Your task to perform on an android device: Search for Mexican restaurants on Maps Image 0: 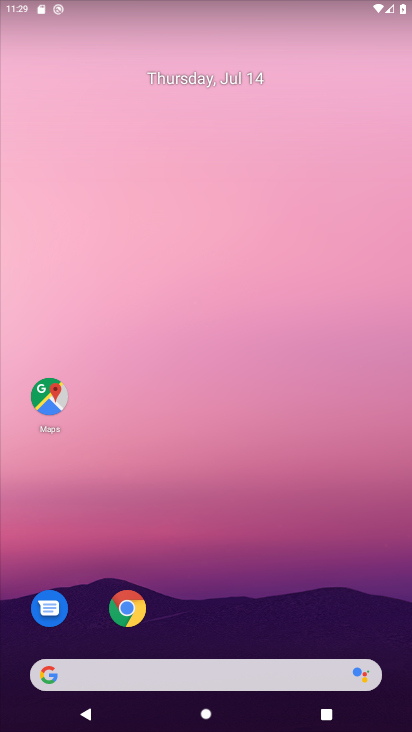
Step 0: drag from (202, 627) to (182, 19)
Your task to perform on an android device: Search for Mexican restaurants on Maps Image 1: 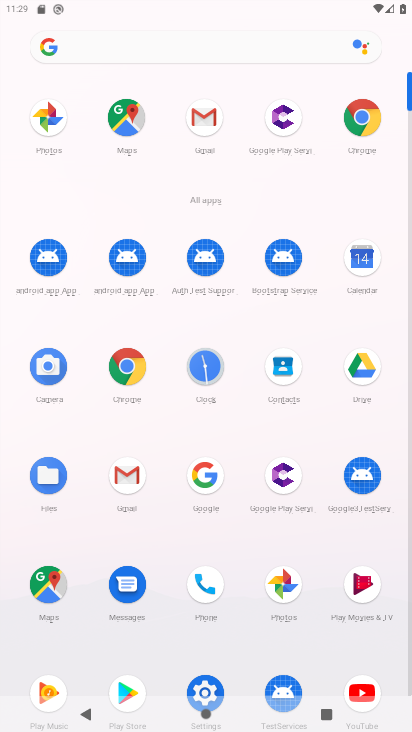
Step 1: click (39, 590)
Your task to perform on an android device: Search for Mexican restaurants on Maps Image 2: 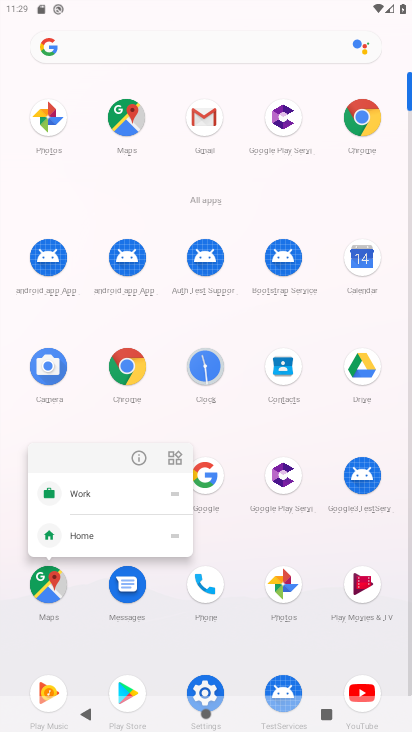
Step 2: click (140, 465)
Your task to perform on an android device: Search for Mexican restaurants on Maps Image 3: 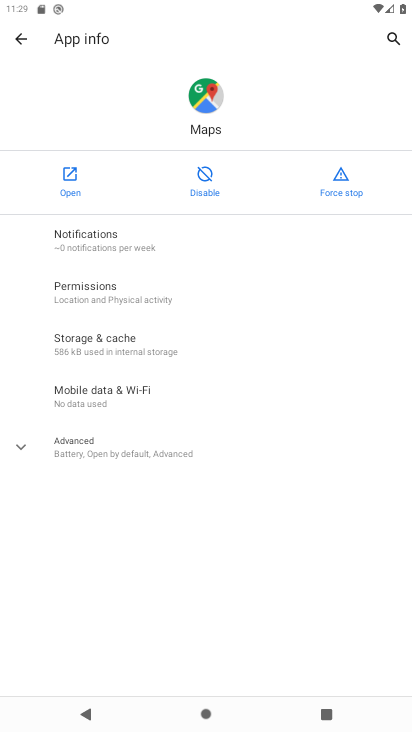
Step 3: click (64, 191)
Your task to perform on an android device: Search for Mexican restaurants on Maps Image 4: 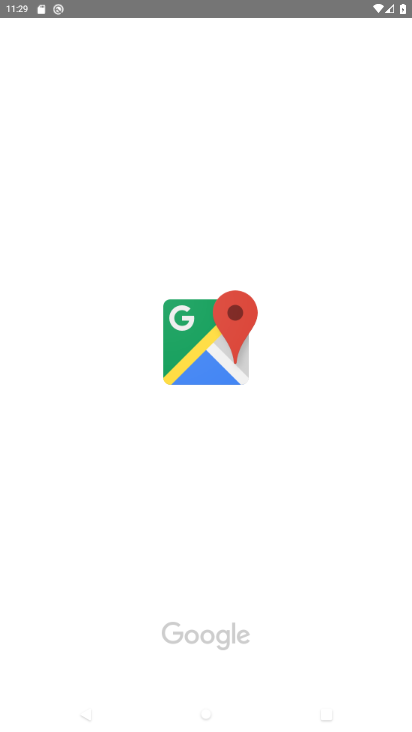
Step 4: click (181, 219)
Your task to perform on an android device: Search for Mexican restaurants on Maps Image 5: 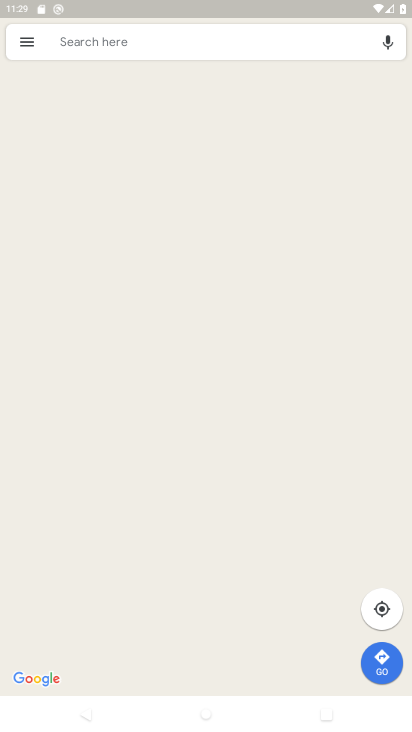
Step 5: drag from (181, 185) to (225, 487)
Your task to perform on an android device: Search for Mexican restaurants on Maps Image 6: 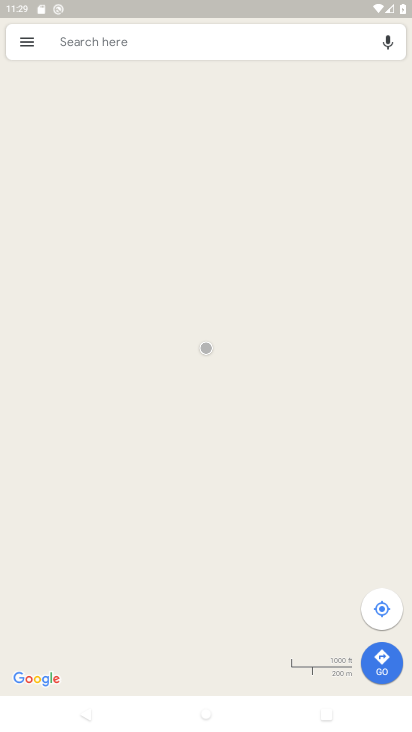
Step 6: click (114, 50)
Your task to perform on an android device: Search for Mexican restaurants on Maps Image 7: 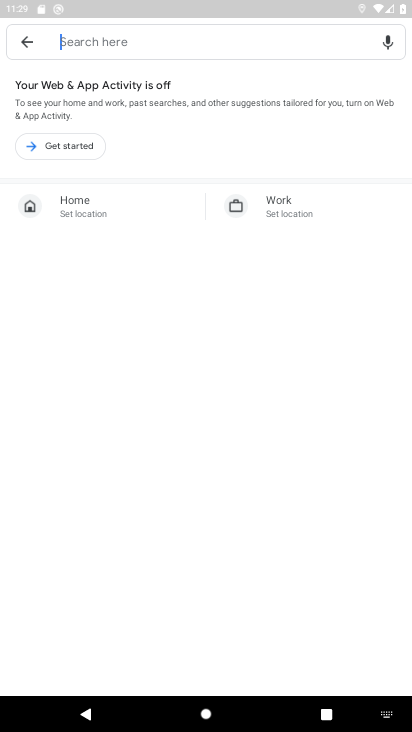
Step 7: drag from (169, 398) to (184, 35)
Your task to perform on an android device: Search for Mexican restaurants on Maps Image 8: 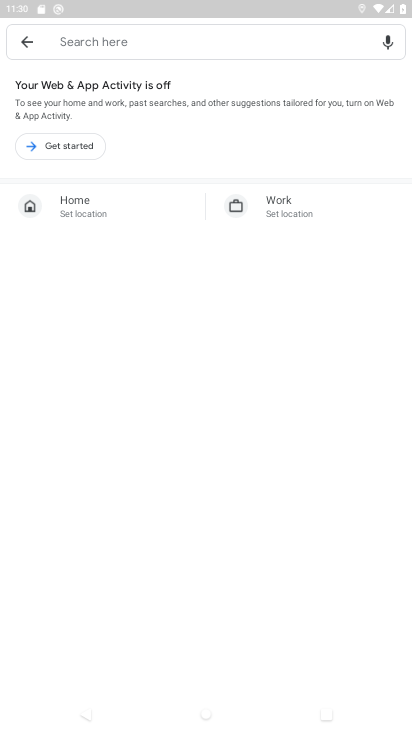
Step 8: drag from (102, 404) to (174, 40)
Your task to perform on an android device: Search for Mexican restaurants on Maps Image 9: 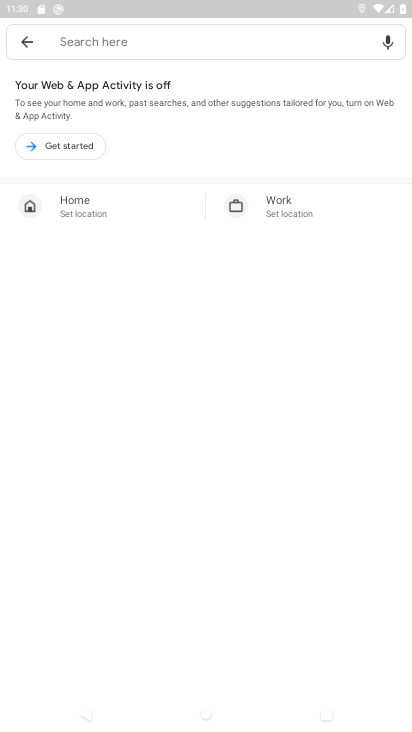
Step 9: click (95, 59)
Your task to perform on an android device: Search for Mexican restaurants on Maps Image 10: 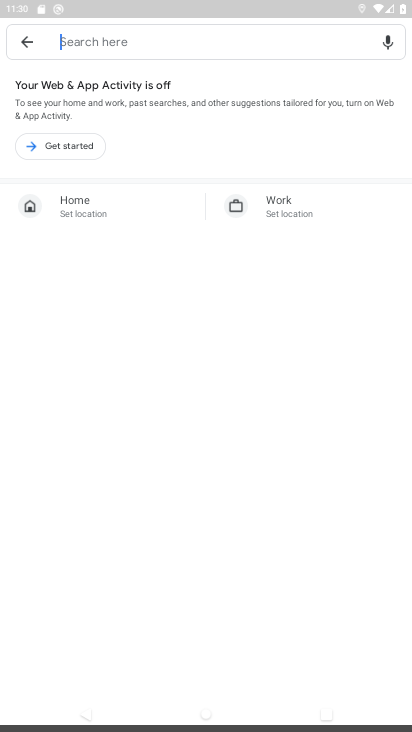
Step 10: click (93, 46)
Your task to perform on an android device: Search for Mexican restaurants on Maps Image 11: 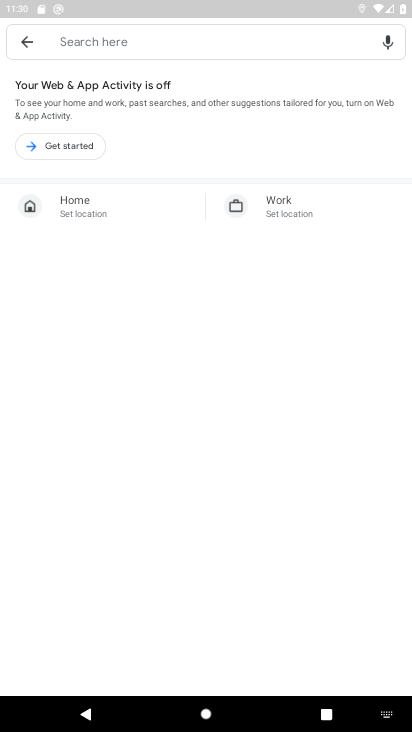
Step 11: type "Mexican restaurants"
Your task to perform on an android device: Search for Mexican restaurants on Maps Image 12: 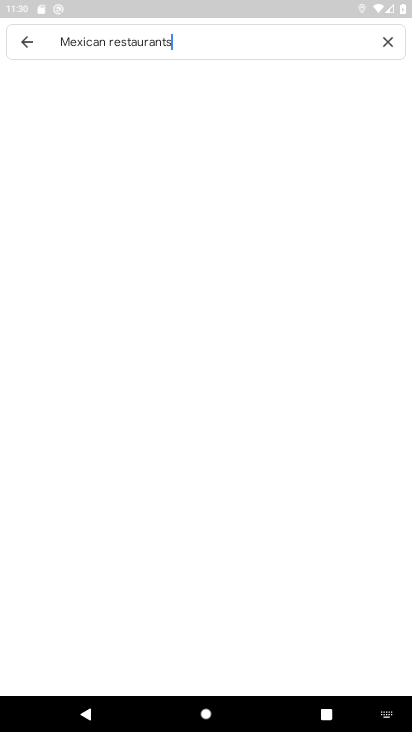
Step 12: type ""
Your task to perform on an android device: Search for Mexican restaurants on Maps Image 13: 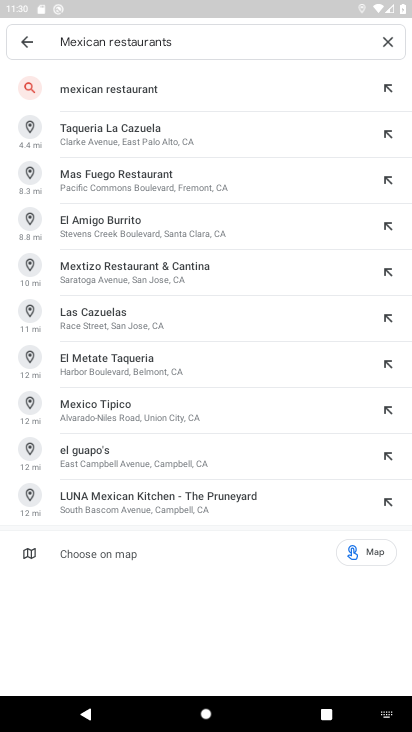
Step 13: click (141, 92)
Your task to perform on an android device: Search for Mexican restaurants on Maps Image 14: 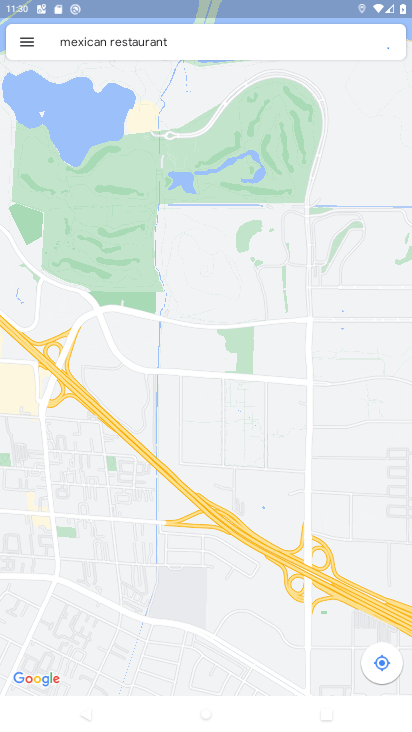
Step 14: task complete